Your task to perform on an android device: uninstall "Google Calendar" Image 0: 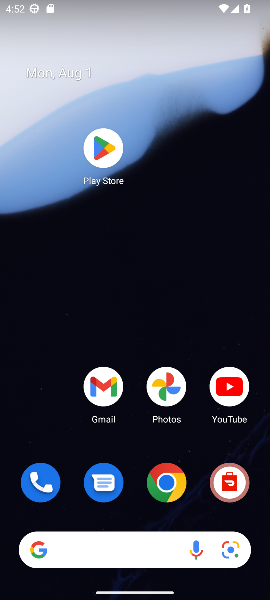
Step 0: press home button
Your task to perform on an android device: uninstall "Google Calendar" Image 1: 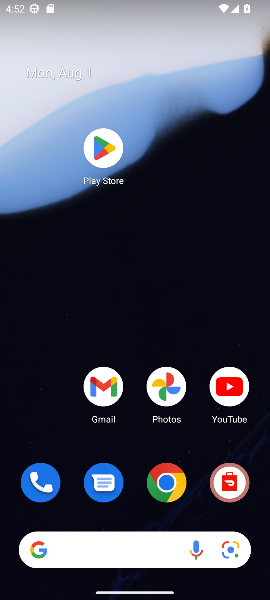
Step 1: click (108, 141)
Your task to perform on an android device: uninstall "Google Calendar" Image 2: 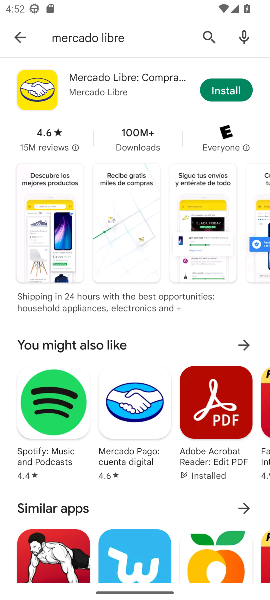
Step 2: click (207, 34)
Your task to perform on an android device: uninstall "Google Calendar" Image 3: 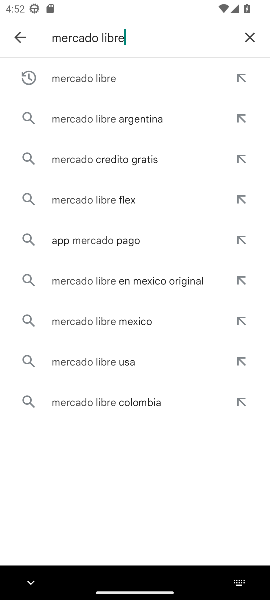
Step 3: click (249, 35)
Your task to perform on an android device: uninstall "Google Calendar" Image 4: 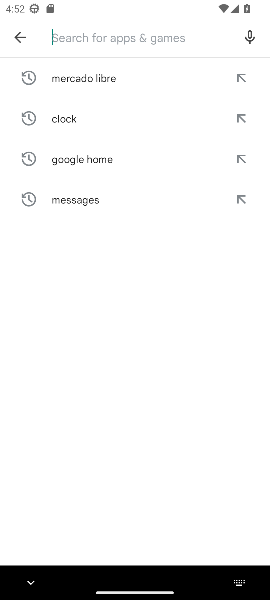
Step 4: type "Google Calendar"
Your task to perform on an android device: uninstall "Google Calendar" Image 5: 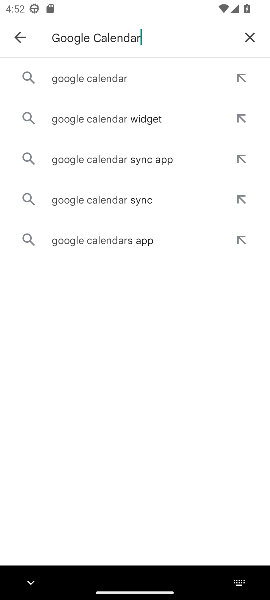
Step 5: click (71, 79)
Your task to perform on an android device: uninstall "Google Calendar" Image 6: 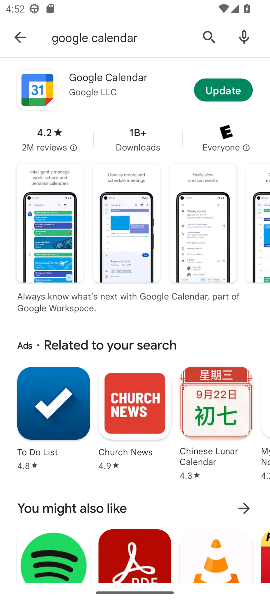
Step 6: click (78, 88)
Your task to perform on an android device: uninstall "Google Calendar" Image 7: 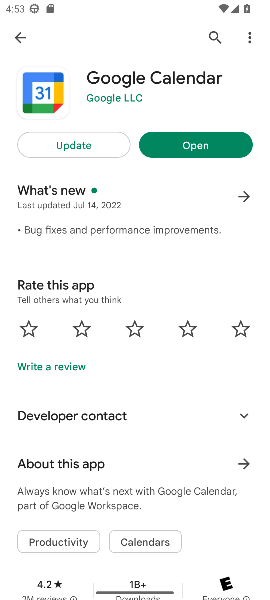
Step 7: task complete